Your task to perform on an android device: Go to CNN.com Image 0: 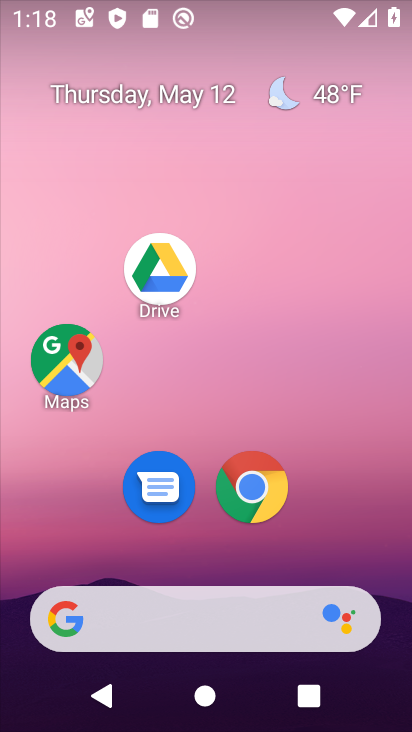
Step 0: click (242, 467)
Your task to perform on an android device: Go to CNN.com Image 1: 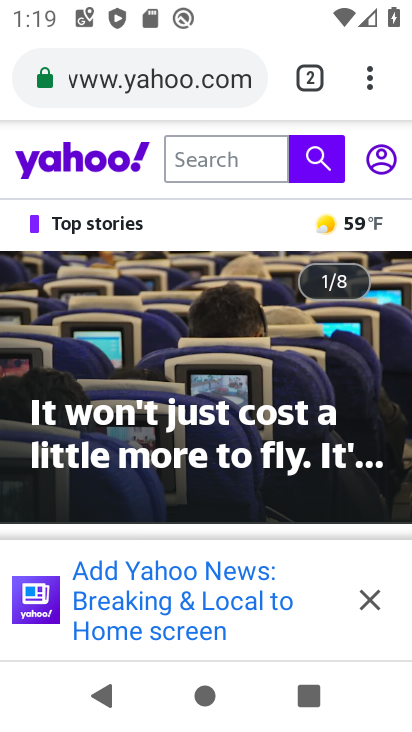
Step 1: click (310, 68)
Your task to perform on an android device: Go to CNN.com Image 2: 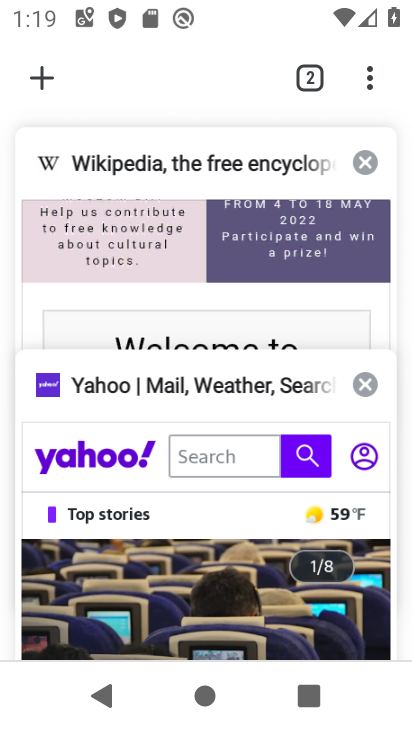
Step 2: click (46, 77)
Your task to perform on an android device: Go to CNN.com Image 3: 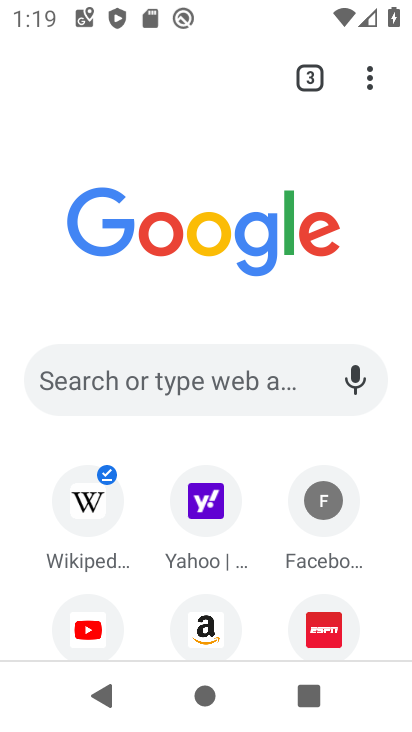
Step 3: click (116, 356)
Your task to perform on an android device: Go to CNN.com Image 4: 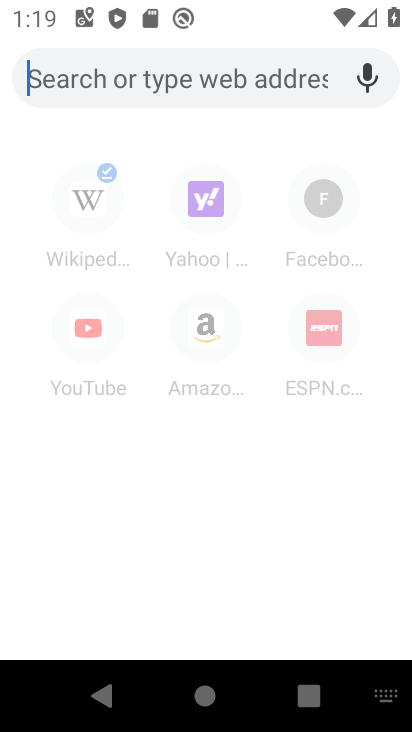
Step 4: type "cnn"
Your task to perform on an android device: Go to CNN.com Image 5: 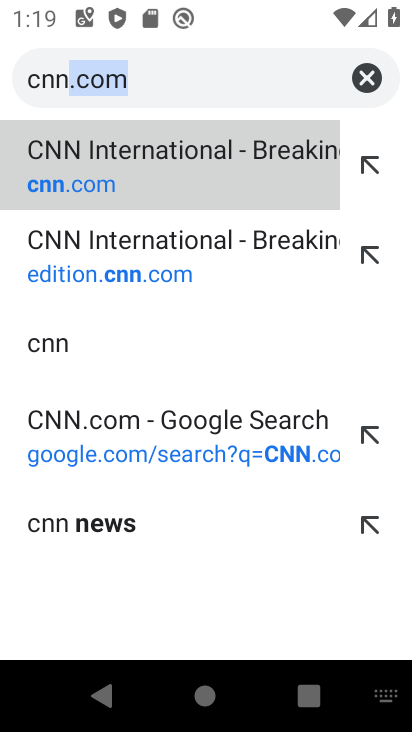
Step 5: type ""
Your task to perform on an android device: Go to CNN.com Image 6: 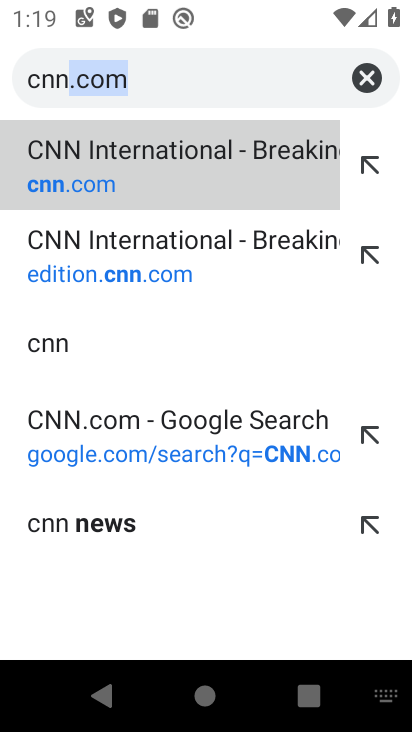
Step 6: click (62, 183)
Your task to perform on an android device: Go to CNN.com Image 7: 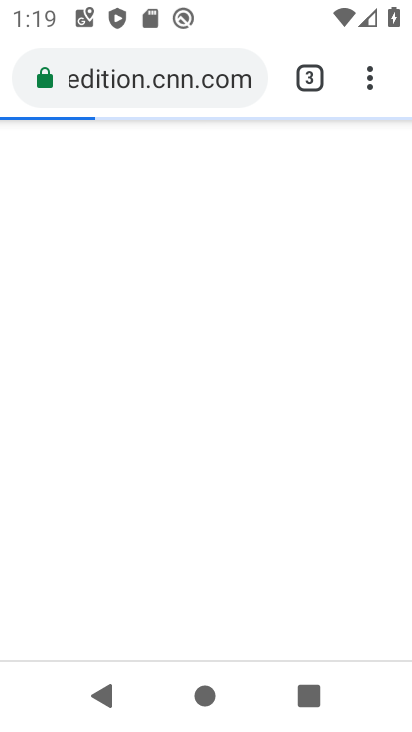
Step 7: task complete